Your task to perform on an android device: turn off notifications settings in the gmail app Image 0: 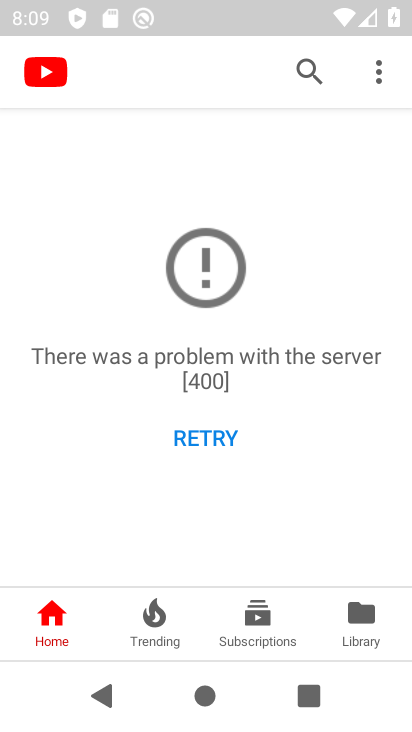
Step 0: press home button
Your task to perform on an android device: turn off notifications settings in the gmail app Image 1: 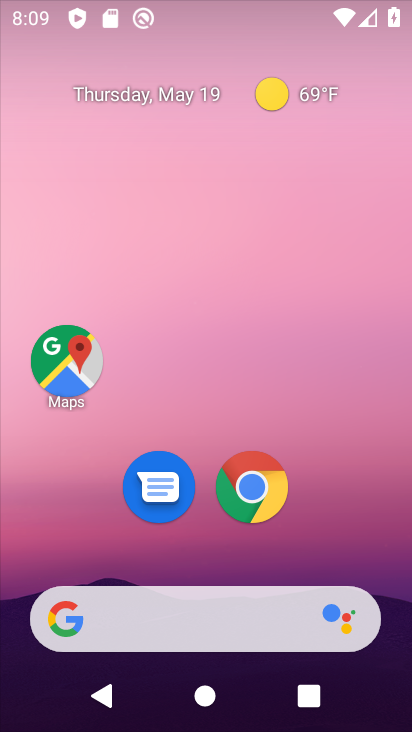
Step 1: drag from (207, 559) to (199, 44)
Your task to perform on an android device: turn off notifications settings in the gmail app Image 2: 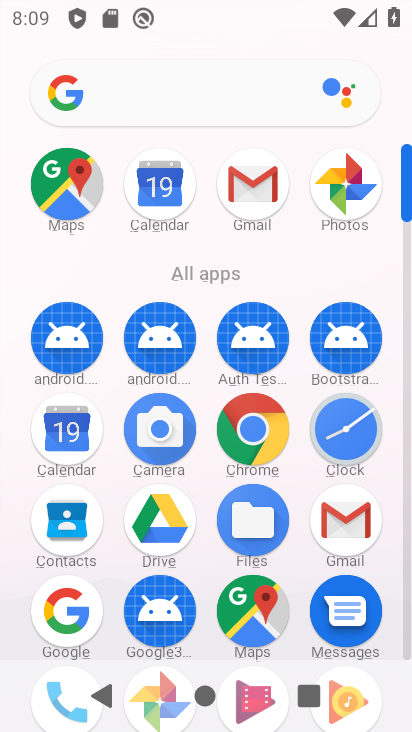
Step 2: click (361, 523)
Your task to perform on an android device: turn off notifications settings in the gmail app Image 3: 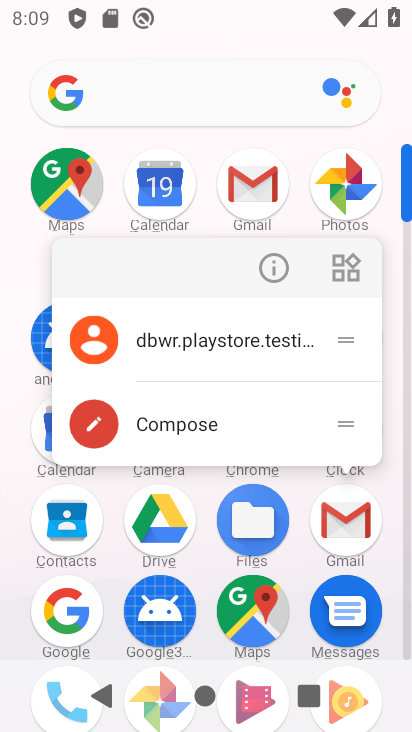
Step 3: click (362, 538)
Your task to perform on an android device: turn off notifications settings in the gmail app Image 4: 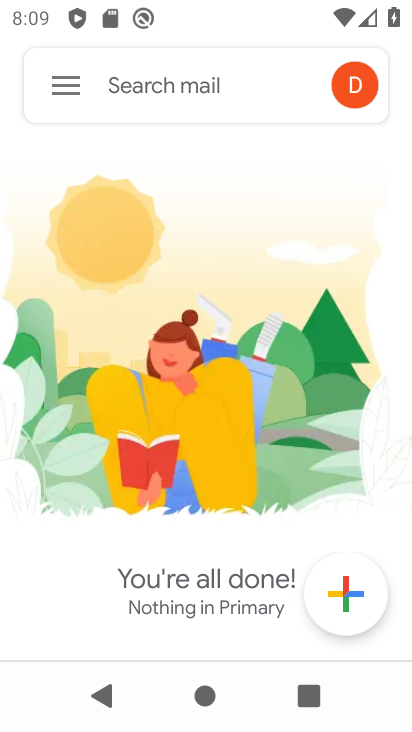
Step 4: click (53, 96)
Your task to perform on an android device: turn off notifications settings in the gmail app Image 5: 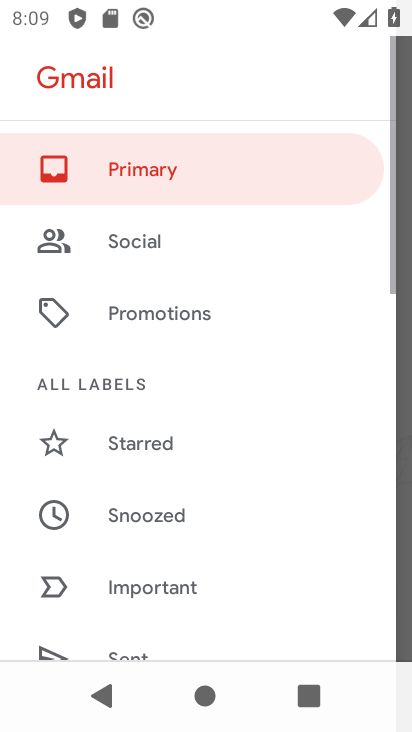
Step 5: drag from (125, 491) to (126, 26)
Your task to perform on an android device: turn off notifications settings in the gmail app Image 6: 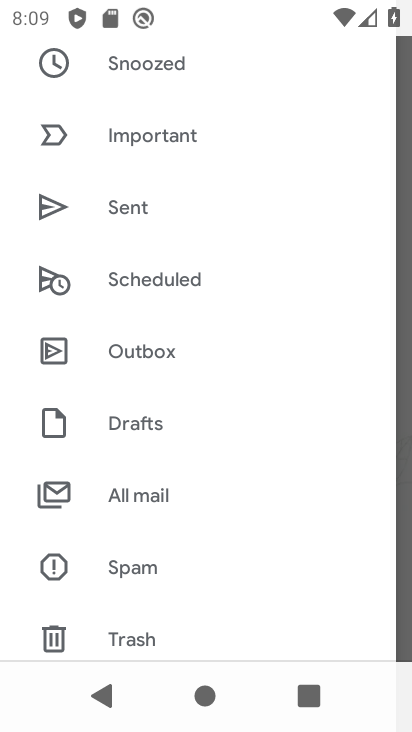
Step 6: drag from (128, 549) to (95, 66)
Your task to perform on an android device: turn off notifications settings in the gmail app Image 7: 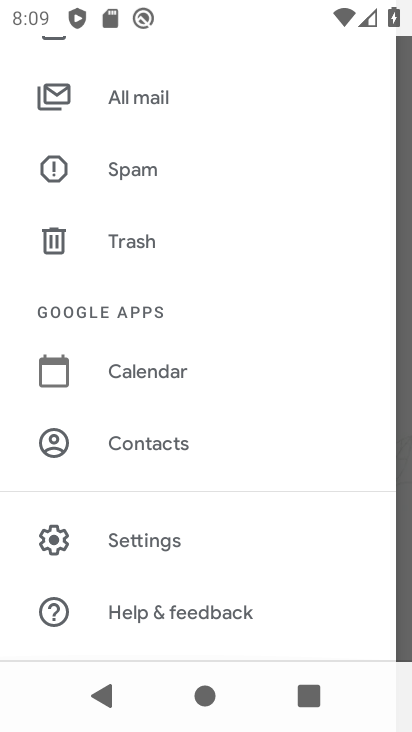
Step 7: click (129, 530)
Your task to perform on an android device: turn off notifications settings in the gmail app Image 8: 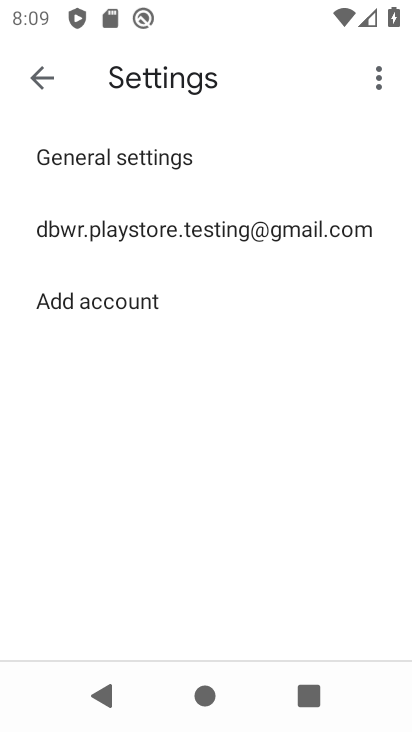
Step 8: click (59, 152)
Your task to perform on an android device: turn off notifications settings in the gmail app Image 9: 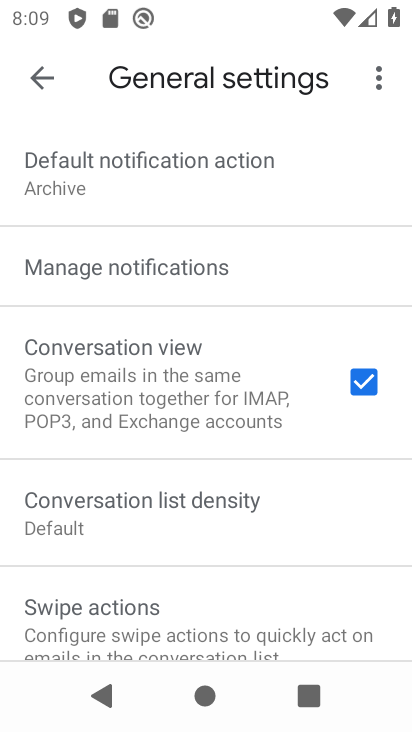
Step 9: click (234, 268)
Your task to perform on an android device: turn off notifications settings in the gmail app Image 10: 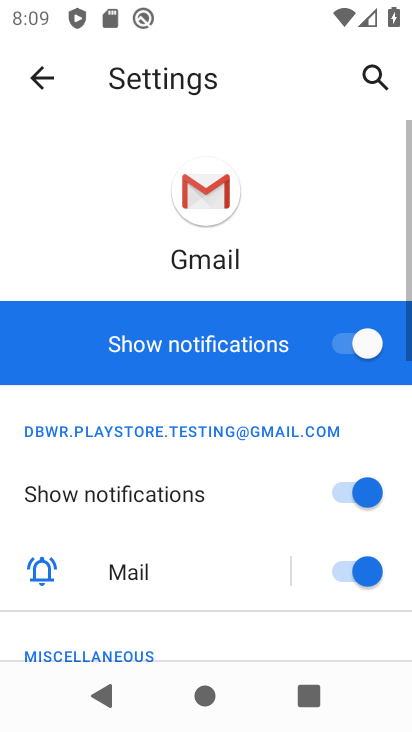
Step 10: click (362, 331)
Your task to perform on an android device: turn off notifications settings in the gmail app Image 11: 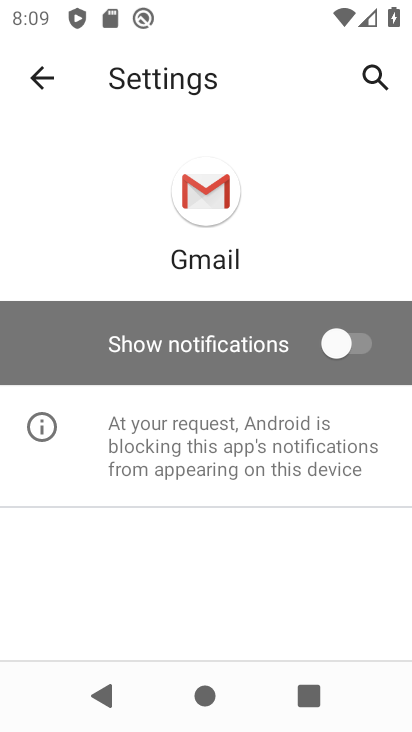
Step 11: task complete